Your task to perform on an android device: Open Yahoo.com Image 0: 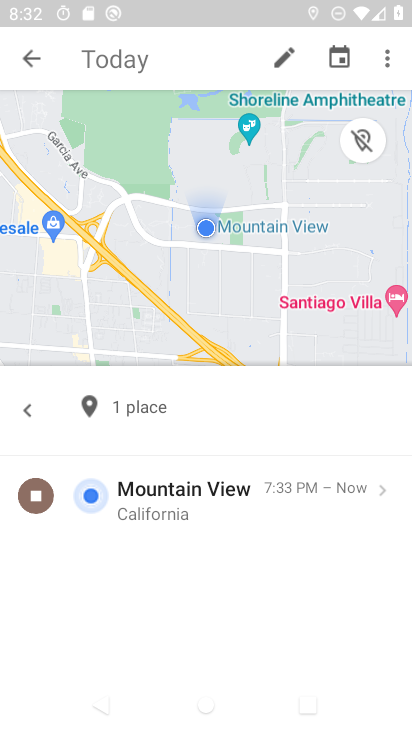
Step 0: press home button
Your task to perform on an android device: Open Yahoo.com Image 1: 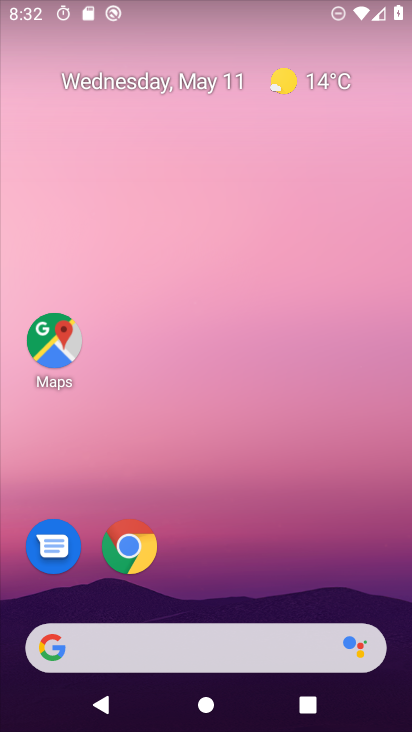
Step 1: click (134, 564)
Your task to perform on an android device: Open Yahoo.com Image 2: 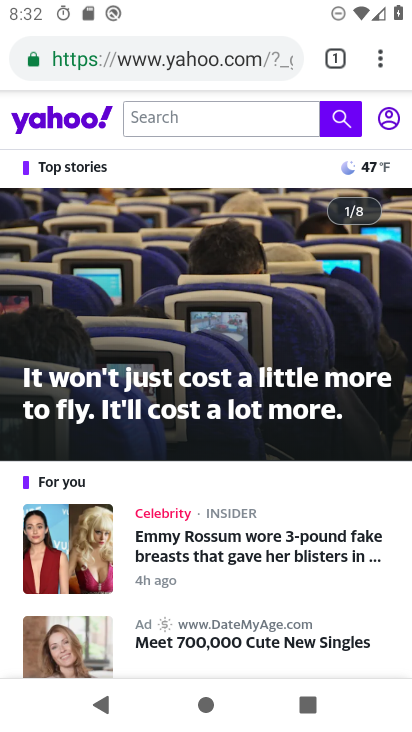
Step 2: task complete